Your task to perform on an android device: see creations saved in the google photos Image 0: 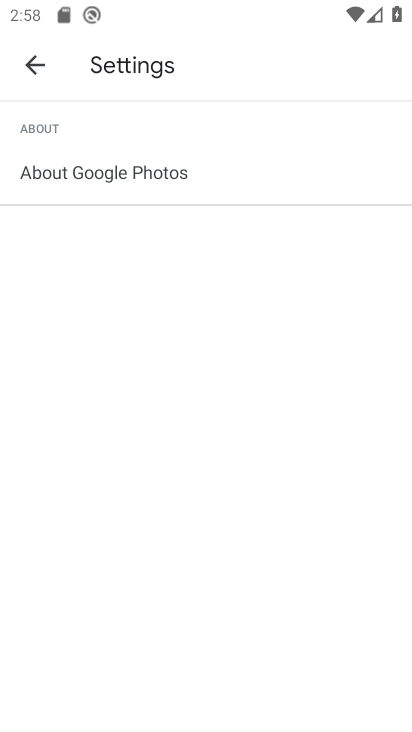
Step 0: press back button
Your task to perform on an android device: see creations saved in the google photos Image 1: 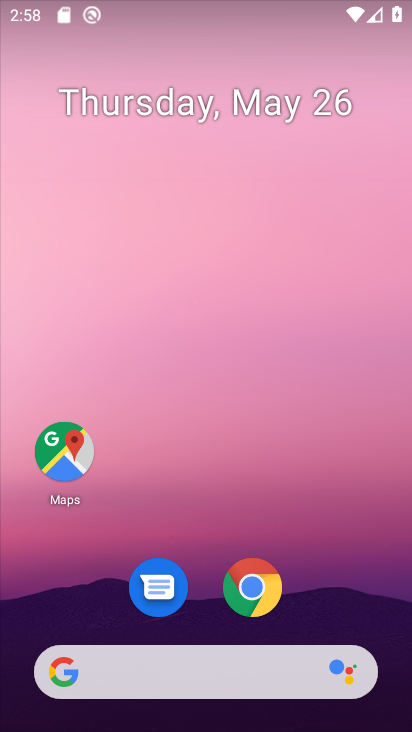
Step 1: drag from (347, 489) to (260, 205)
Your task to perform on an android device: see creations saved in the google photos Image 2: 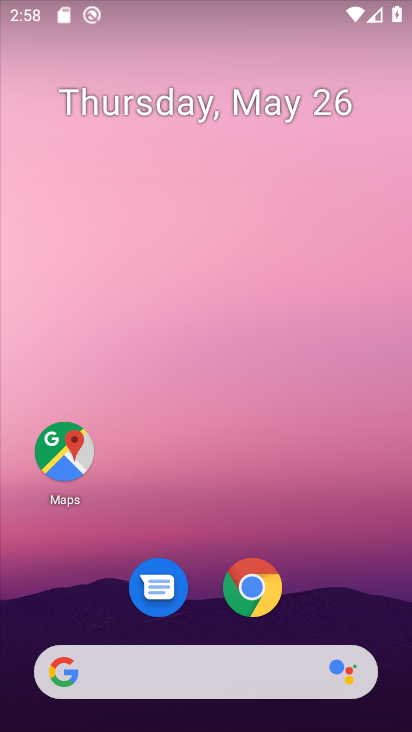
Step 2: drag from (201, 610) to (132, 10)
Your task to perform on an android device: see creations saved in the google photos Image 3: 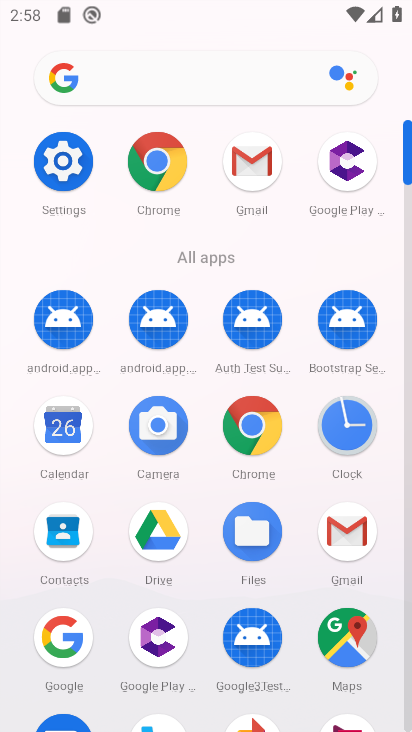
Step 3: drag from (312, 552) to (263, 250)
Your task to perform on an android device: see creations saved in the google photos Image 4: 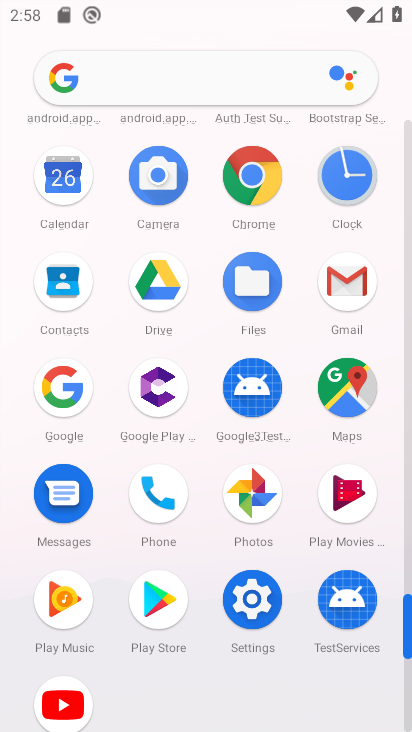
Step 4: drag from (281, 456) to (273, 228)
Your task to perform on an android device: see creations saved in the google photos Image 5: 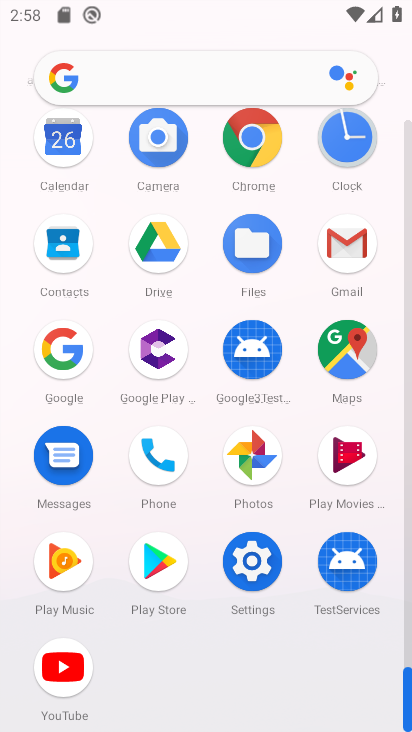
Step 5: drag from (263, 508) to (283, 337)
Your task to perform on an android device: see creations saved in the google photos Image 6: 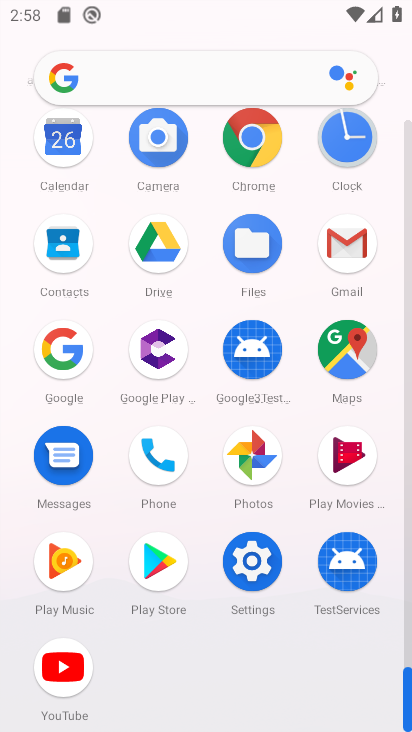
Step 6: click (261, 450)
Your task to perform on an android device: see creations saved in the google photos Image 7: 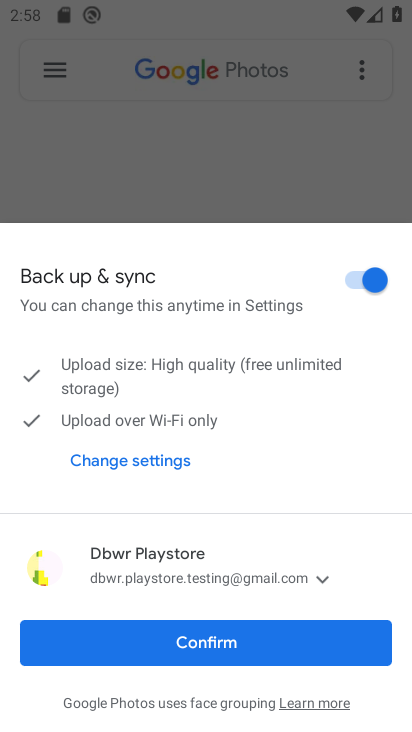
Step 7: click (224, 646)
Your task to perform on an android device: see creations saved in the google photos Image 8: 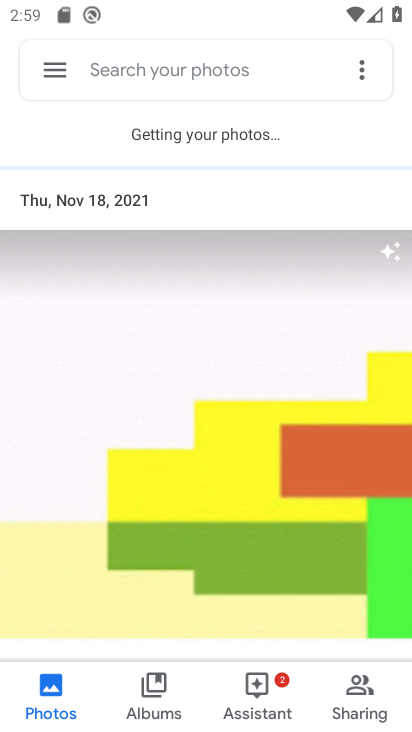
Step 8: task complete